Your task to perform on an android device: change keyboard looks Image 0: 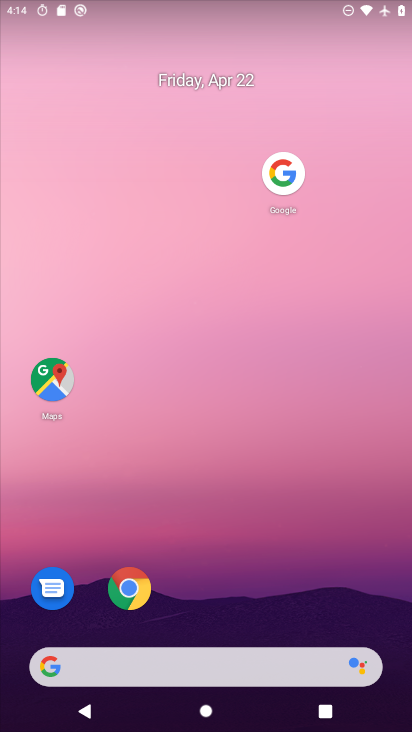
Step 0: drag from (221, 627) to (236, 0)
Your task to perform on an android device: change keyboard looks Image 1: 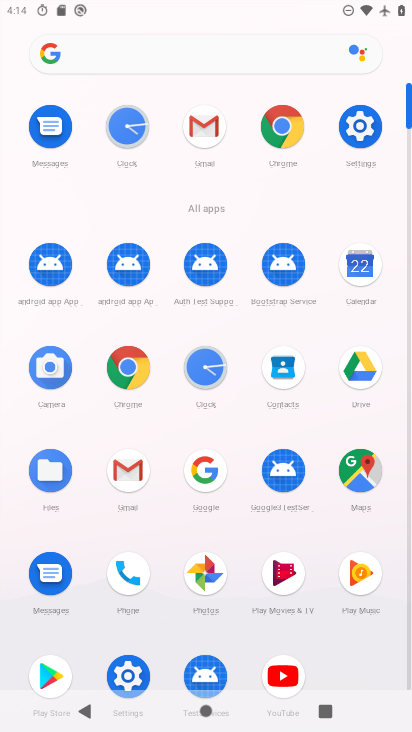
Step 1: click (362, 128)
Your task to perform on an android device: change keyboard looks Image 2: 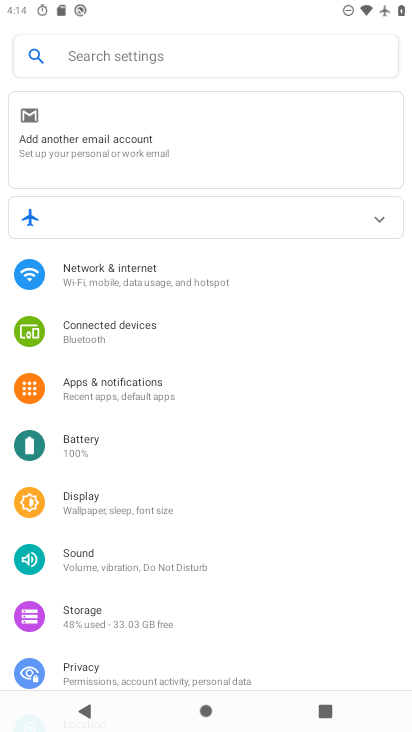
Step 2: drag from (142, 519) to (87, 96)
Your task to perform on an android device: change keyboard looks Image 3: 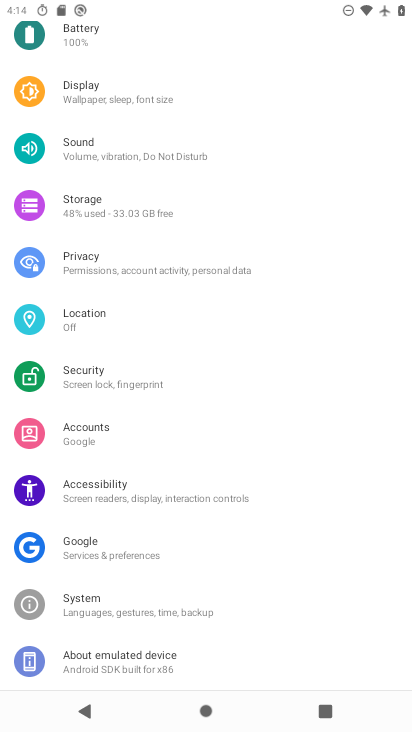
Step 3: click (80, 616)
Your task to perform on an android device: change keyboard looks Image 4: 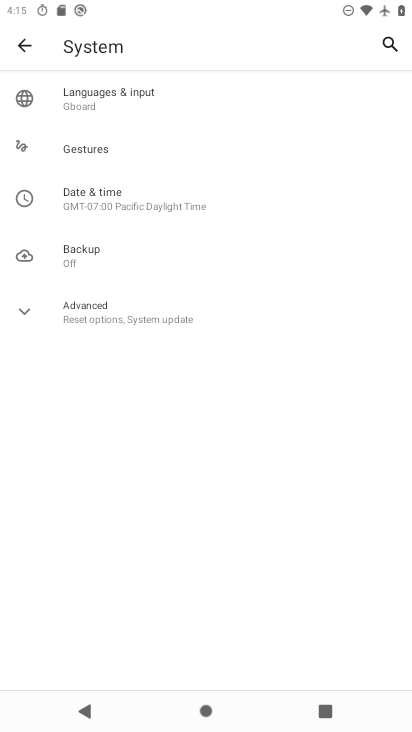
Step 4: click (73, 314)
Your task to perform on an android device: change keyboard looks Image 5: 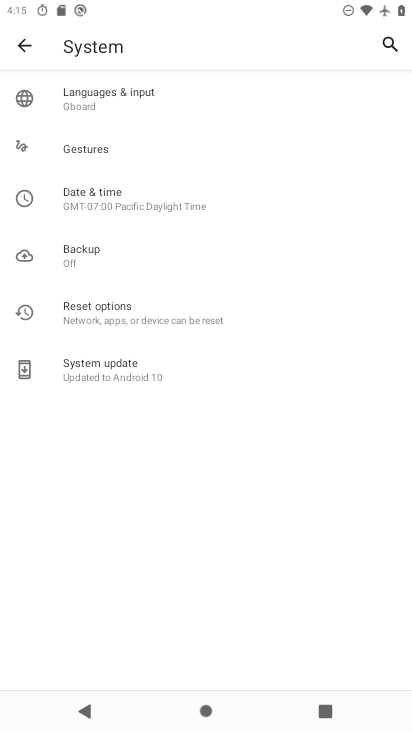
Step 5: click (89, 81)
Your task to perform on an android device: change keyboard looks Image 6: 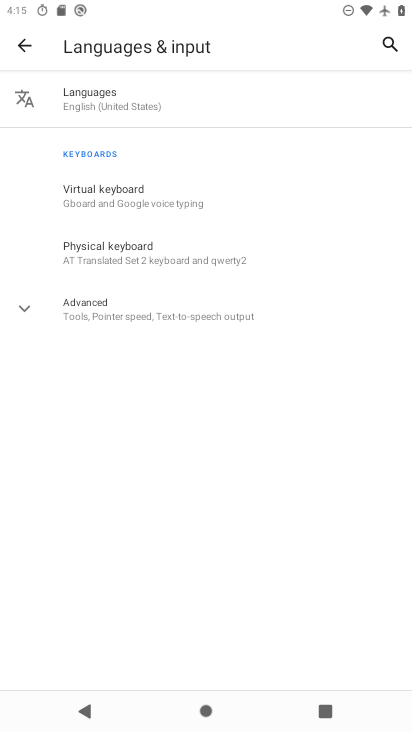
Step 6: click (107, 184)
Your task to perform on an android device: change keyboard looks Image 7: 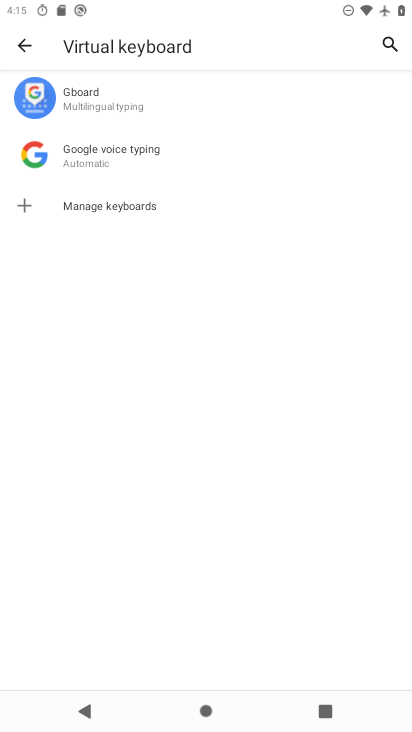
Step 7: click (83, 95)
Your task to perform on an android device: change keyboard looks Image 8: 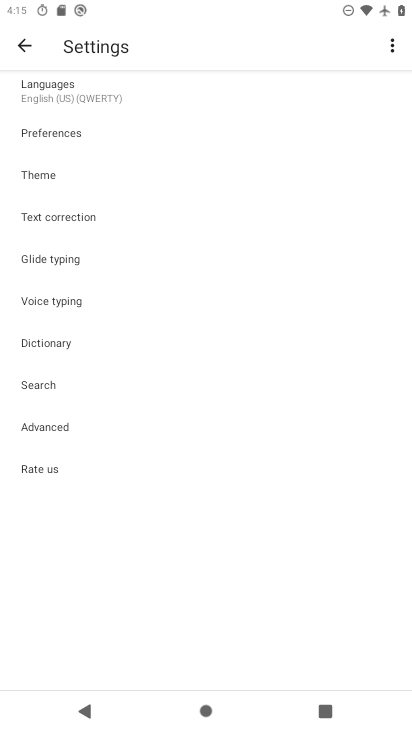
Step 8: click (47, 186)
Your task to perform on an android device: change keyboard looks Image 9: 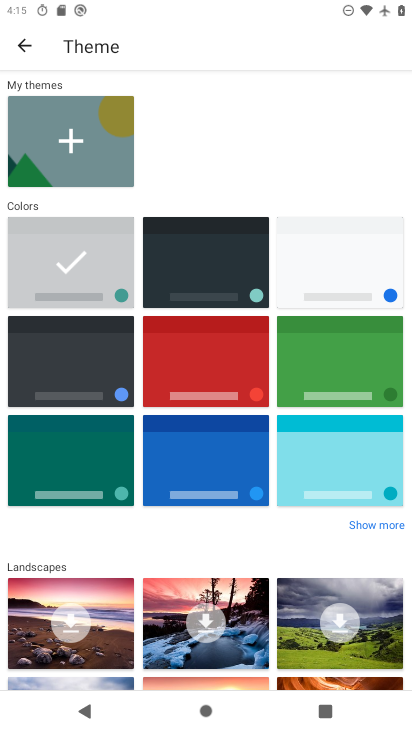
Step 9: click (196, 374)
Your task to perform on an android device: change keyboard looks Image 10: 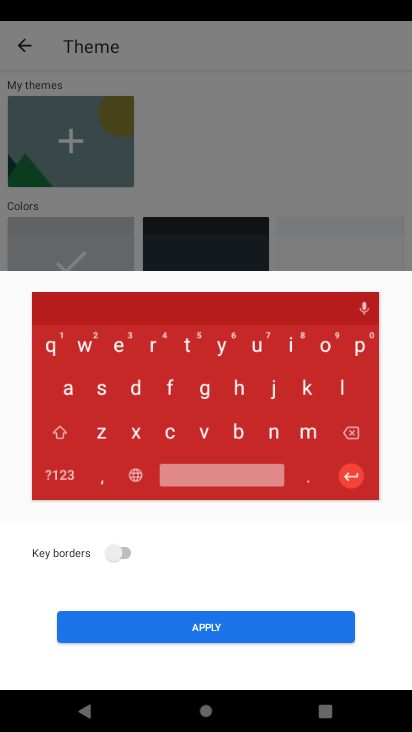
Step 10: click (173, 620)
Your task to perform on an android device: change keyboard looks Image 11: 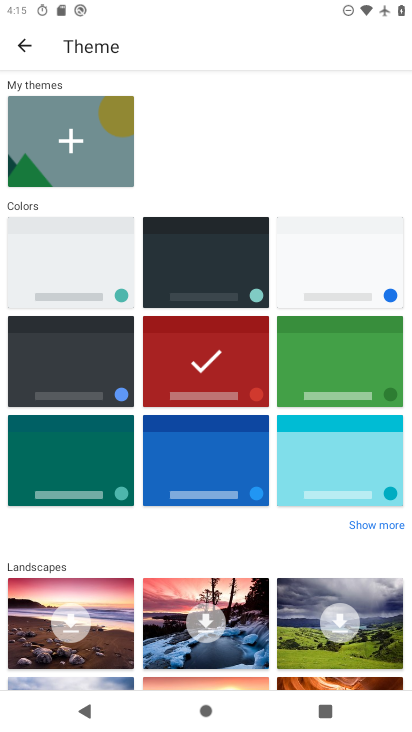
Step 11: task complete